Your task to perform on an android device: Show me popular games on the Play Store Image 0: 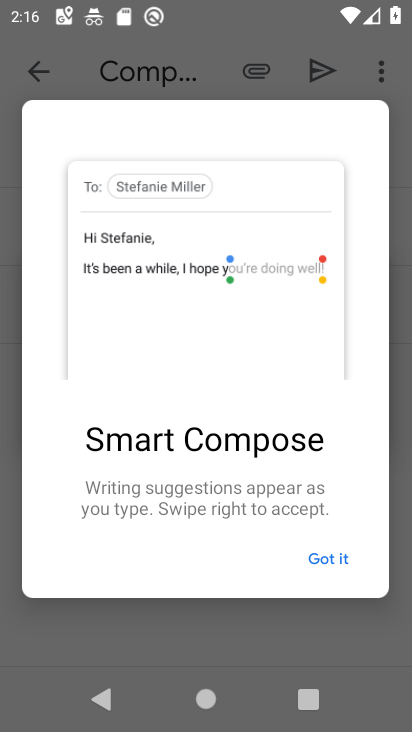
Step 0: press home button
Your task to perform on an android device: Show me popular games on the Play Store Image 1: 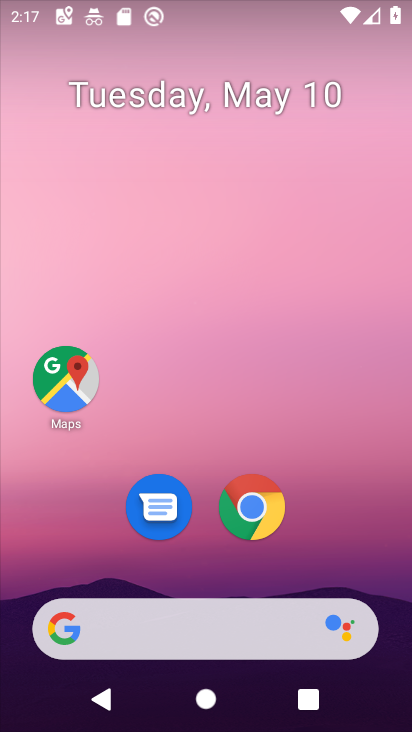
Step 1: drag from (174, 567) to (278, 57)
Your task to perform on an android device: Show me popular games on the Play Store Image 2: 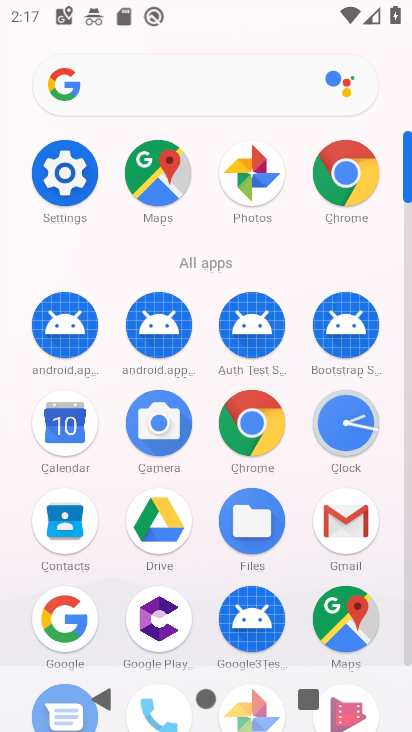
Step 2: drag from (178, 649) to (182, 391)
Your task to perform on an android device: Show me popular games on the Play Store Image 3: 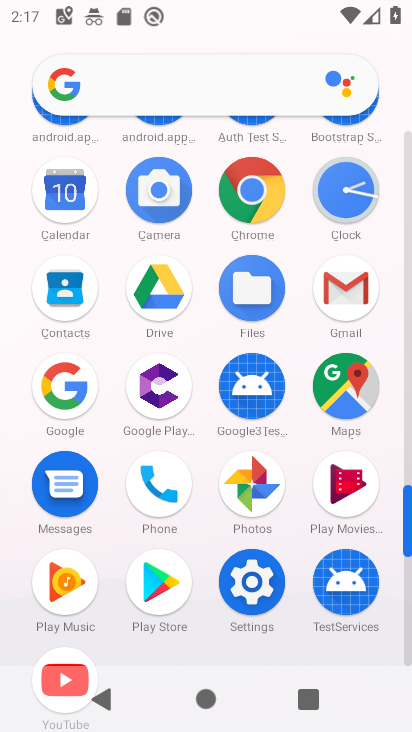
Step 3: click (156, 573)
Your task to perform on an android device: Show me popular games on the Play Store Image 4: 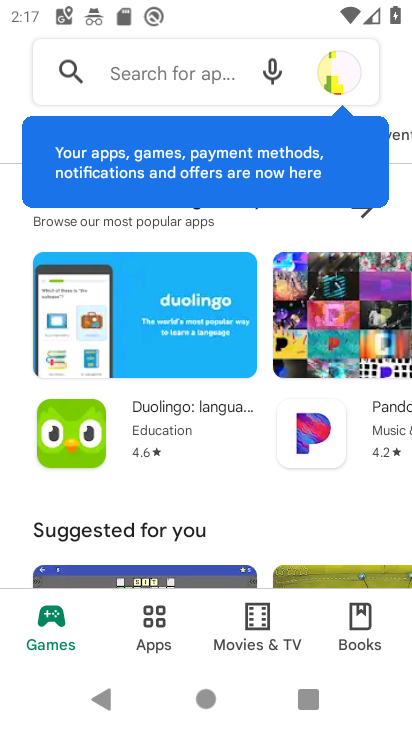
Step 4: click (178, 73)
Your task to perform on an android device: Show me popular games on the Play Store Image 5: 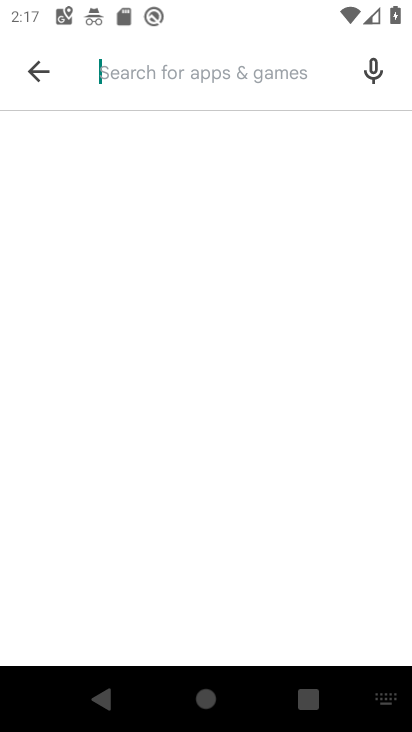
Step 5: type "popular games"
Your task to perform on an android device: Show me popular games on the Play Store Image 6: 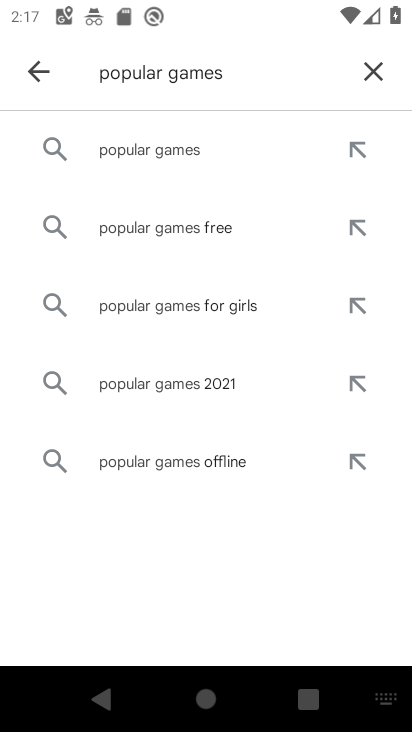
Step 6: click (198, 152)
Your task to perform on an android device: Show me popular games on the Play Store Image 7: 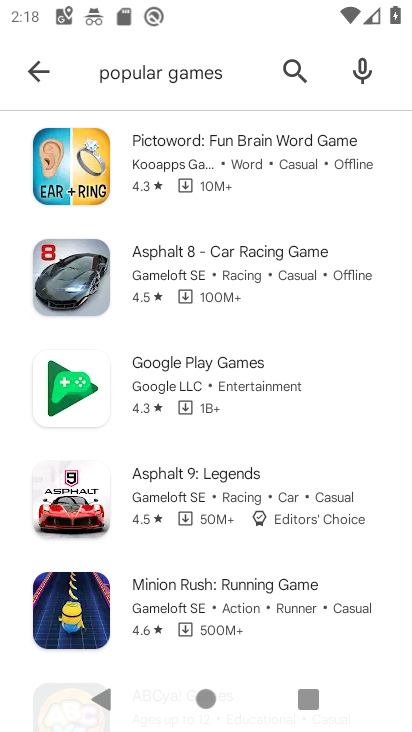
Step 7: task complete